Your task to perform on an android device: Is it going to rain today? Image 0: 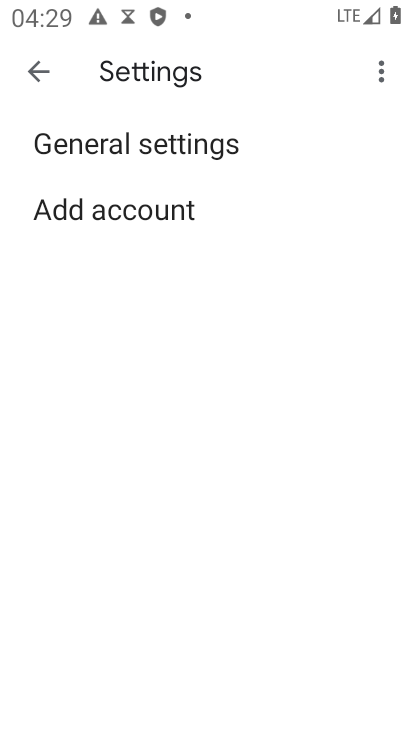
Step 0: click (36, 65)
Your task to perform on an android device: Is it going to rain today? Image 1: 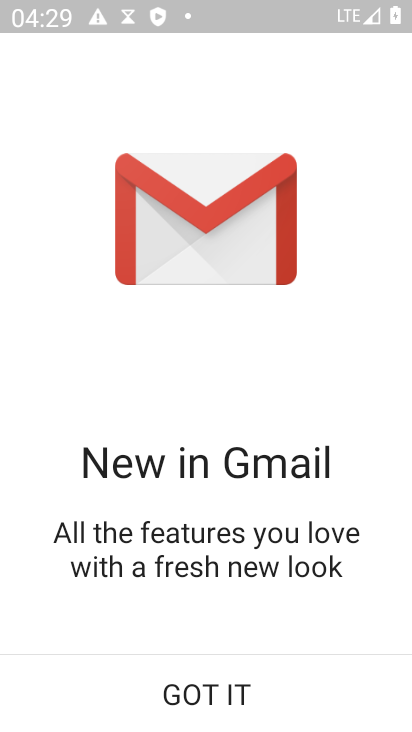
Step 1: press back button
Your task to perform on an android device: Is it going to rain today? Image 2: 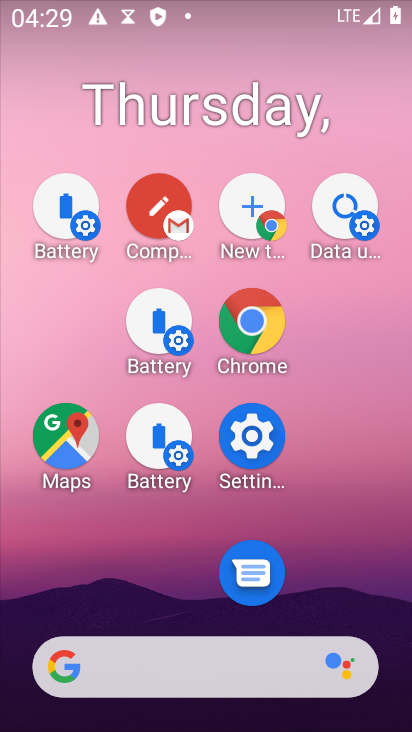
Step 2: drag from (219, 663) to (209, 147)
Your task to perform on an android device: Is it going to rain today? Image 3: 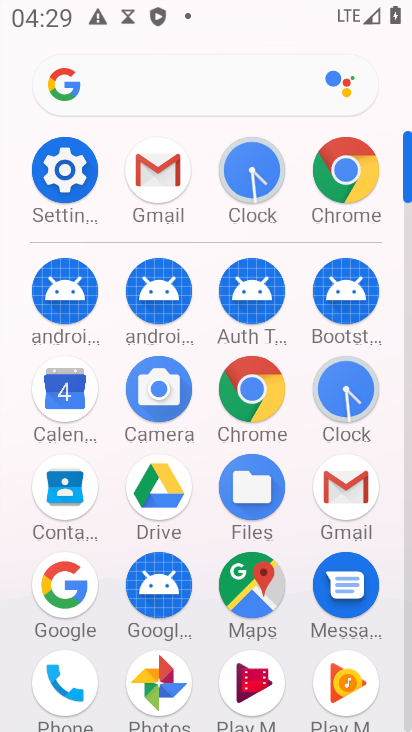
Step 3: click (334, 181)
Your task to perform on an android device: Is it going to rain today? Image 4: 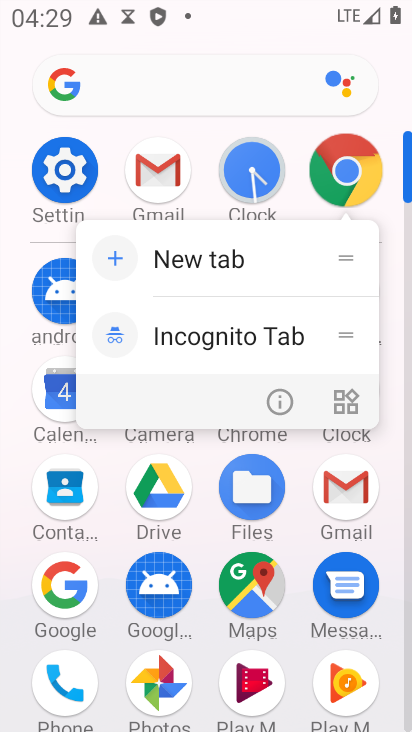
Step 4: click (336, 176)
Your task to perform on an android device: Is it going to rain today? Image 5: 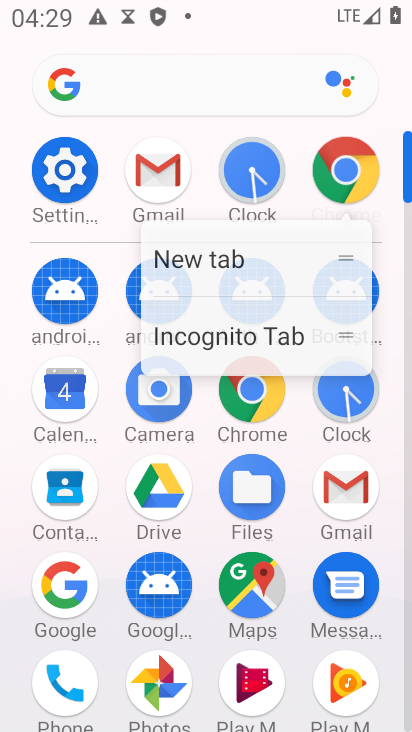
Step 5: click (336, 176)
Your task to perform on an android device: Is it going to rain today? Image 6: 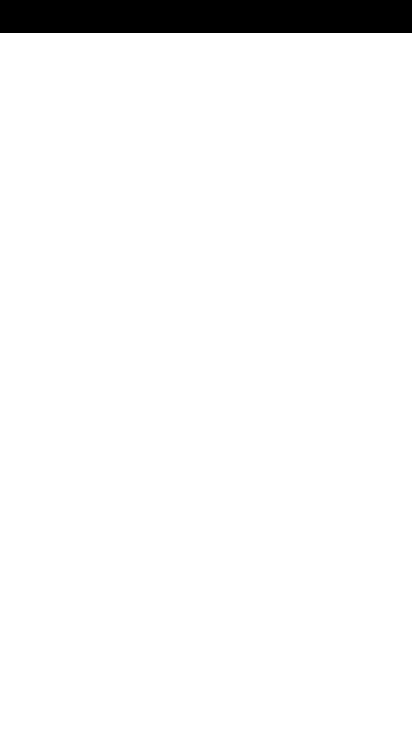
Step 6: click (336, 176)
Your task to perform on an android device: Is it going to rain today? Image 7: 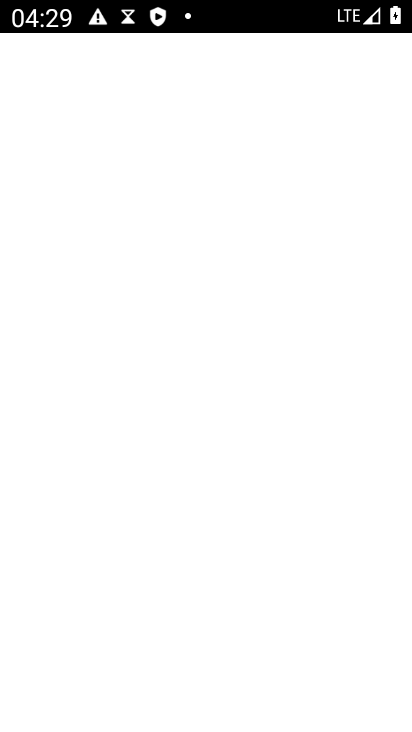
Step 7: click (336, 176)
Your task to perform on an android device: Is it going to rain today? Image 8: 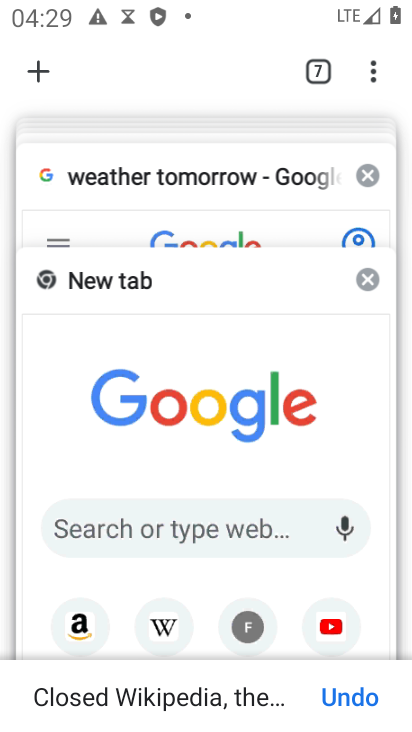
Step 8: drag from (367, 68) to (151, 81)
Your task to perform on an android device: Is it going to rain today? Image 9: 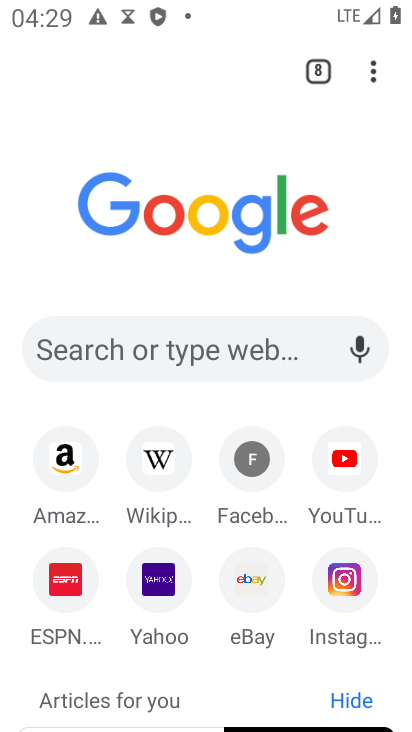
Step 9: click (78, 342)
Your task to perform on an android device: Is it going to rain today? Image 10: 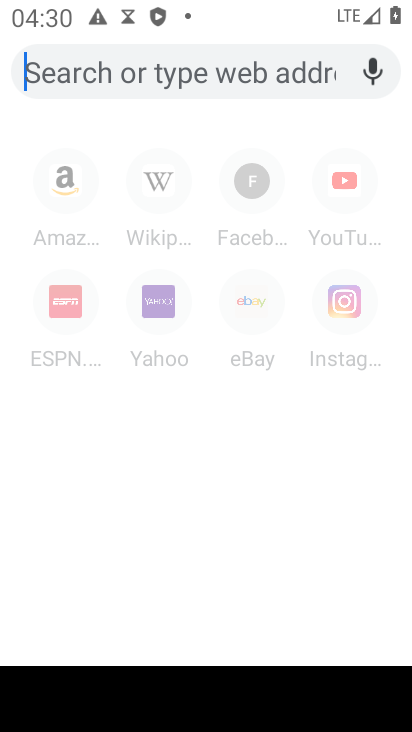
Step 10: type "is it goingvto brain today?"
Your task to perform on an android device: Is it going to rain today? Image 11: 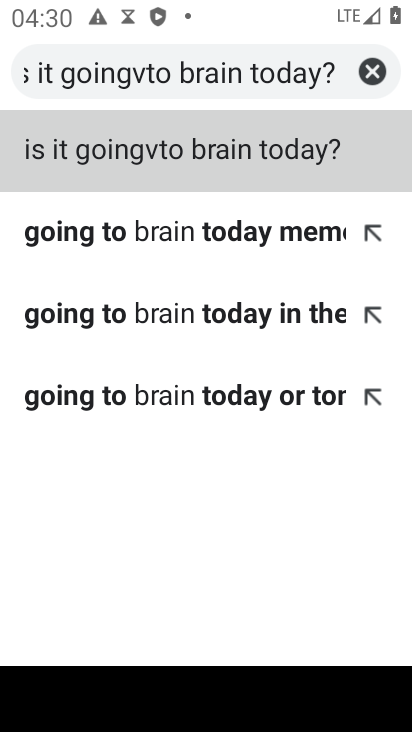
Step 11: click (243, 234)
Your task to perform on an android device: Is it going to rain today? Image 12: 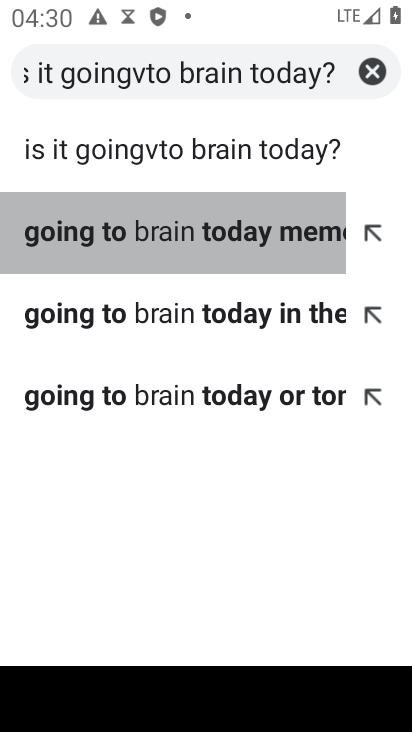
Step 12: click (243, 234)
Your task to perform on an android device: Is it going to rain today? Image 13: 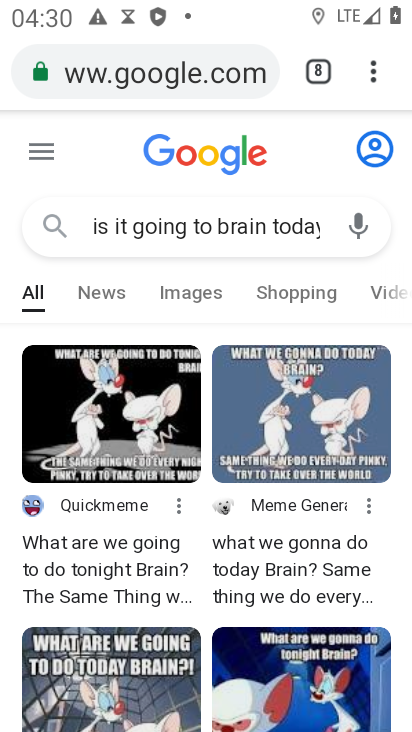
Step 13: click (238, 72)
Your task to perform on an android device: Is it going to rain today? Image 14: 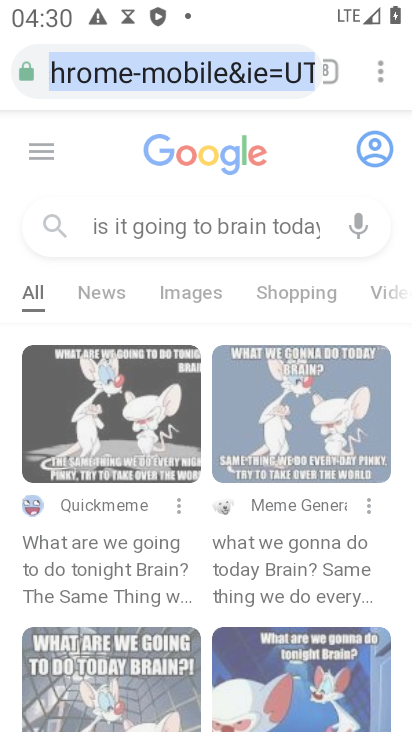
Step 14: click (238, 74)
Your task to perform on an android device: Is it going to rain today? Image 15: 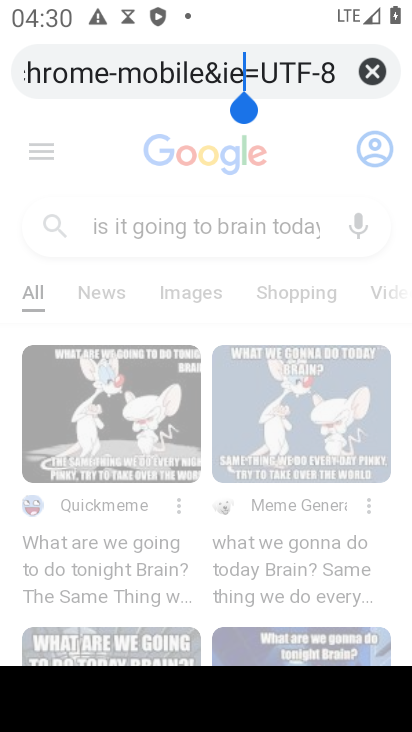
Step 15: click (368, 67)
Your task to perform on an android device: Is it going to rain today? Image 16: 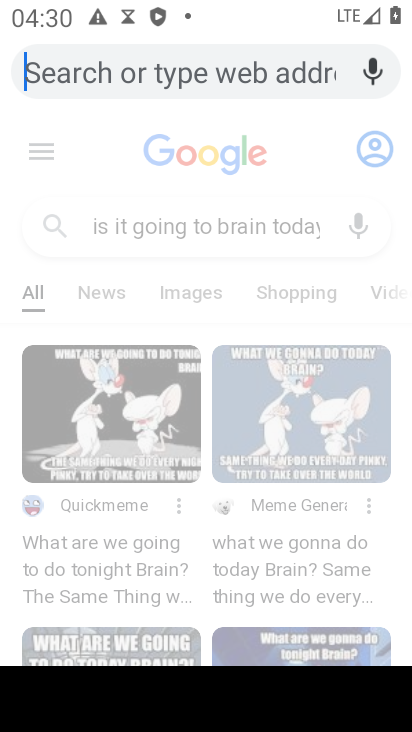
Step 16: type "is it going to rain today?"
Your task to perform on an android device: Is it going to rain today? Image 17: 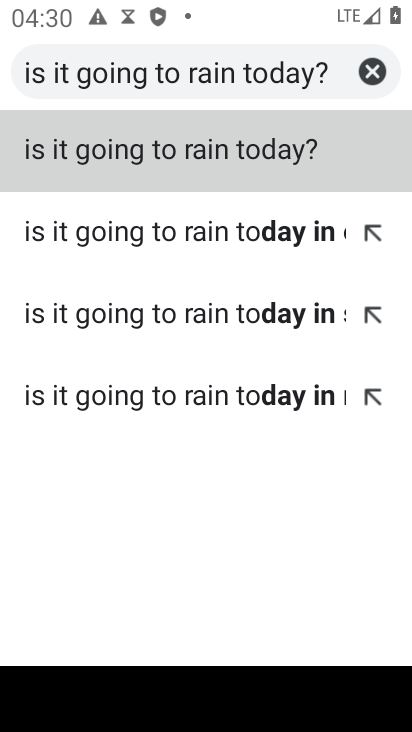
Step 17: click (222, 164)
Your task to perform on an android device: Is it going to rain today? Image 18: 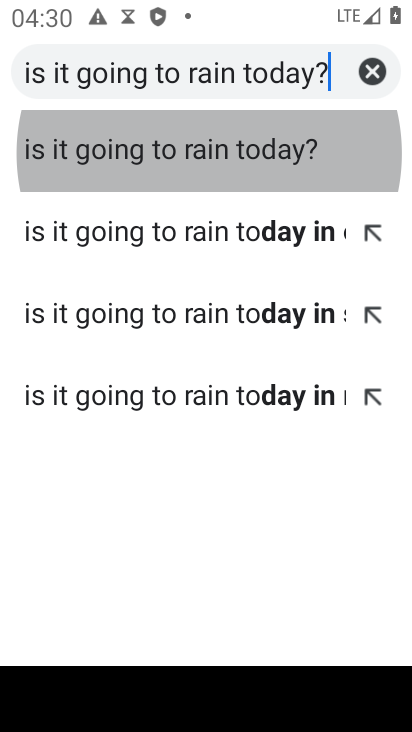
Step 18: click (231, 152)
Your task to perform on an android device: Is it going to rain today? Image 19: 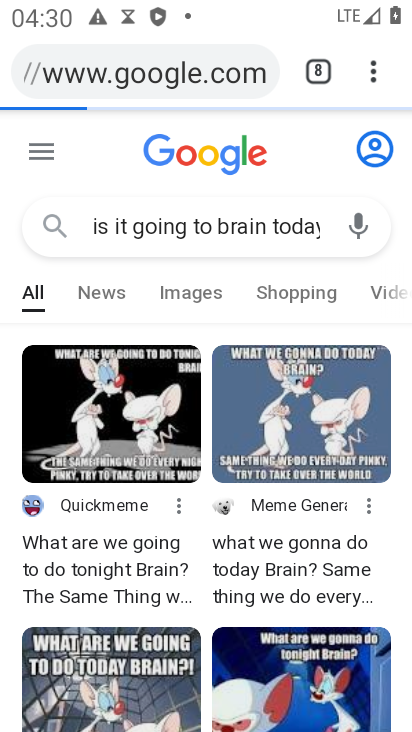
Step 19: click (234, 144)
Your task to perform on an android device: Is it going to rain today? Image 20: 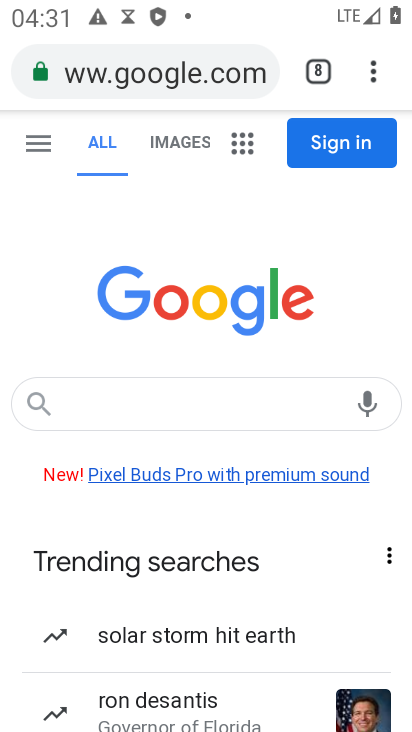
Step 20: task complete